Your task to perform on an android device: turn on showing notifications on the lock screen Image 0: 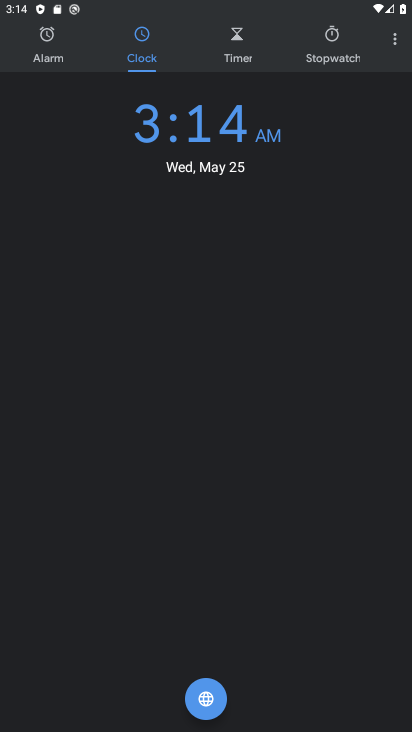
Step 0: press back button
Your task to perform on an android device: turn on showing notifications on the lock screen Image 1: 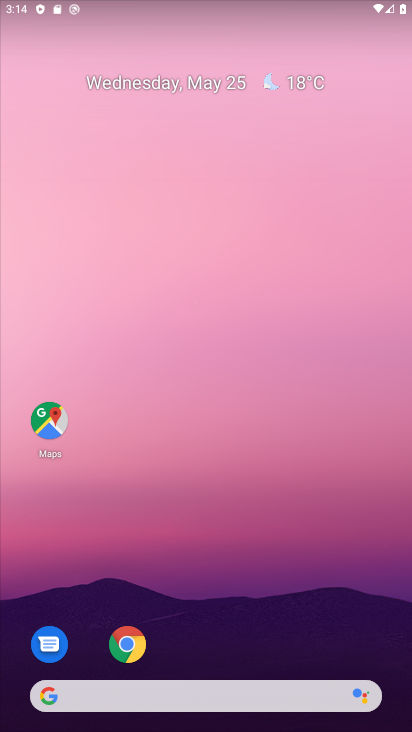
Step 1: drag from (251, 631) to (206, 106)
Your task to perform on an android device: turn on showing notifications on the lock screen Image 2: 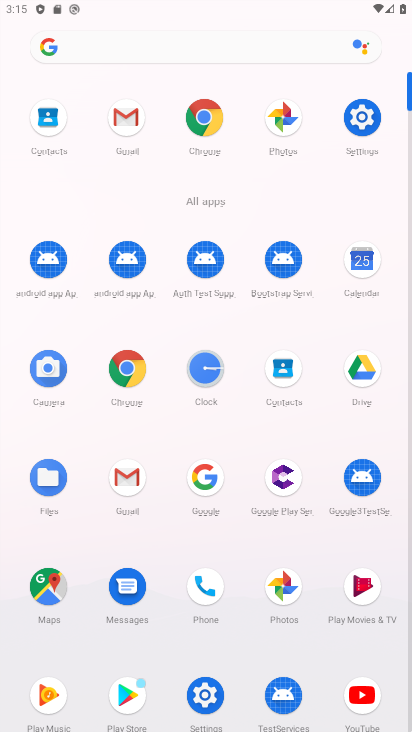
Step 2: click (361, 118)
Your task to perform on an android device: turn on showing notifications on the lock screen Image 3: 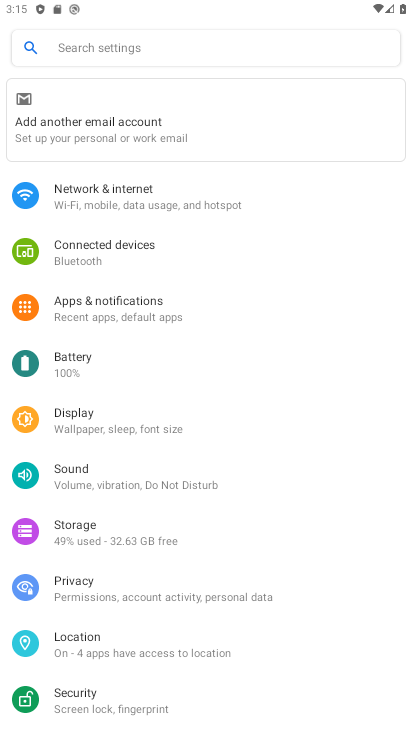
Step 3: click (123, 303)
Your task to perform on an android device: turn on showing notifications on the lock screen Image 4: 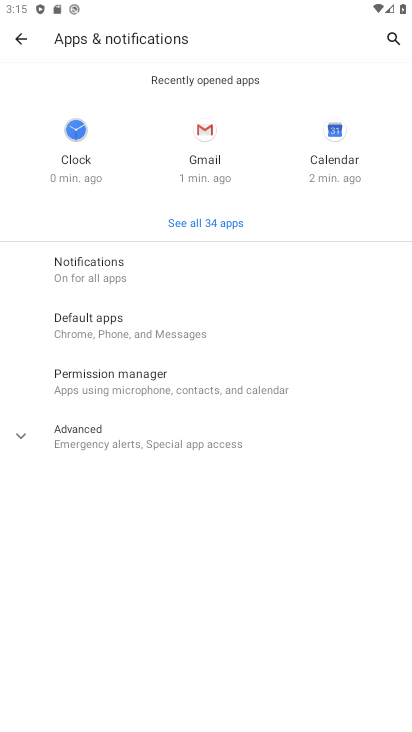
Step 4: click (100, 268)
Your task to perform on an android device: turn on showing notifications on the lock screen Image 5: 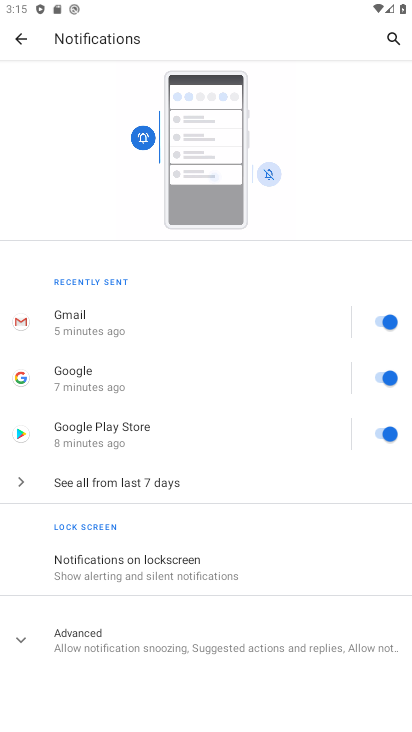
Step 5: click (129, 567)
Your task to perform on an android device: turn on showing notifications on the lock screen Image 6: 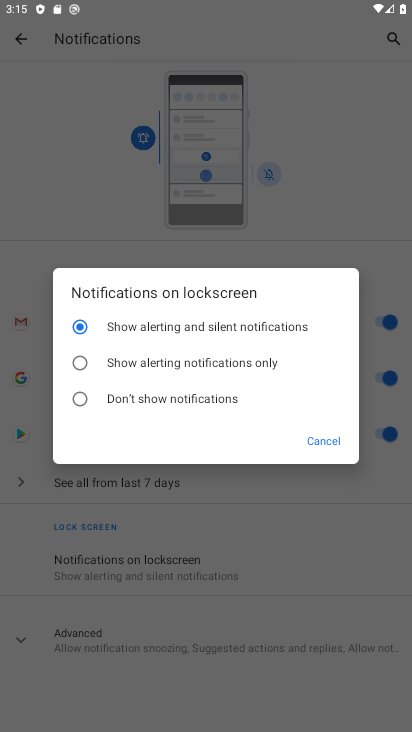
Step 6: click (86, 324)
Your task to perform on an android device: turn on showing notifications on the lock screen Image 7: 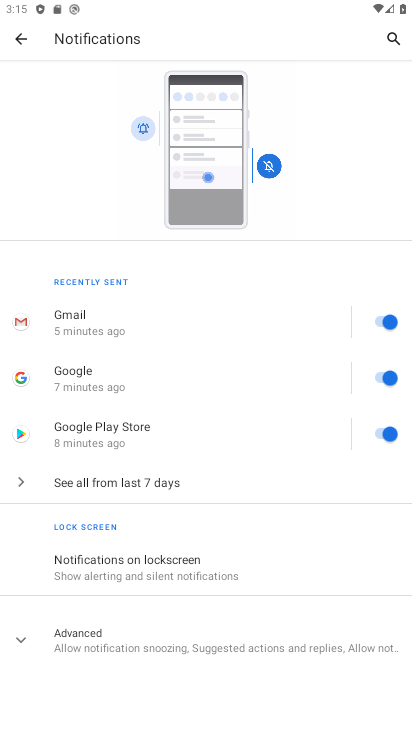
Step 7: task complete